Your task to perform on an android device: Show me the alarms in the clock app Image 0: 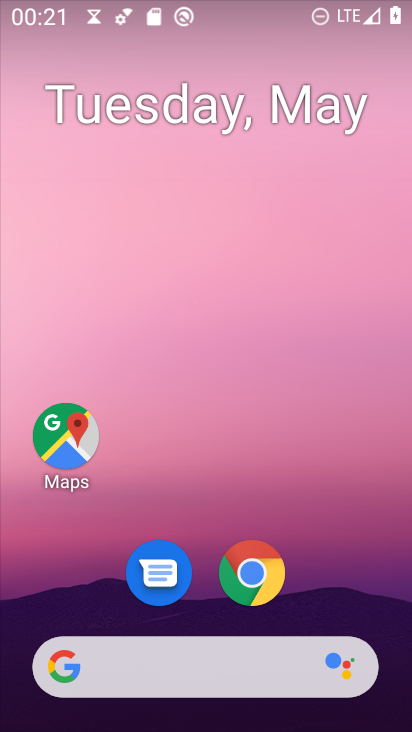
Step 0: drag from (297, 305) to (192, 37)
Your task to perform on an android device: Show me the alarms in the clock app Image 1: 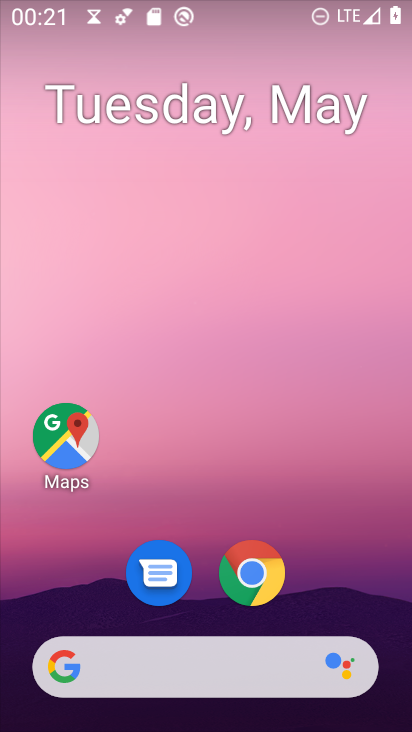
Step 1: drag from (340, 524) to (228, 3)
Your task to perform on an android device: Show me the alarms in the clock app Image 2: 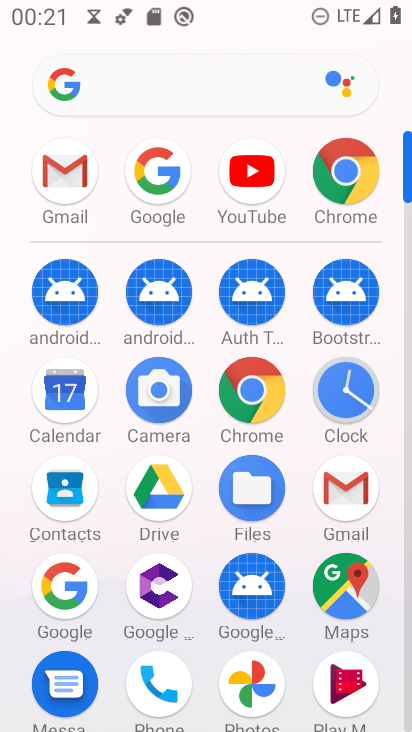
Step 2: click (354, 399)
Your task to perform on an android device: Show me the alarms in the clock app Image 3: 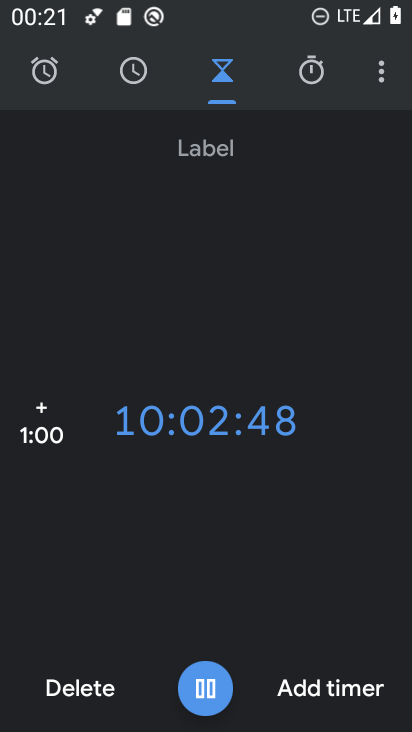
Step 3: click (61, 80)
Your task to perform on an android device: Show me the alarms in the clock app Image 4: 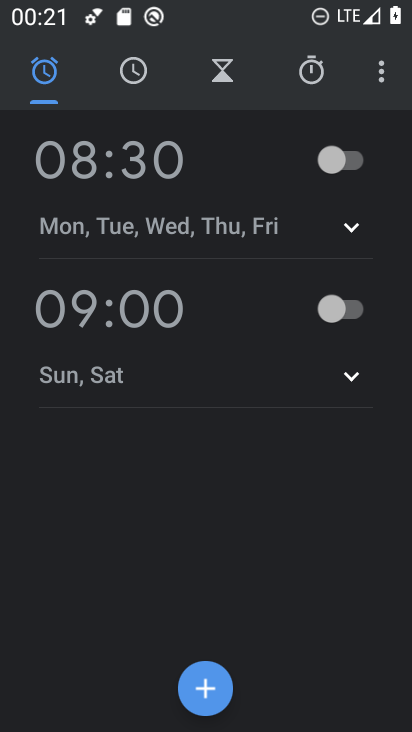
Step 4: task complete